Your task to perform on an android device: turn notification dots off Image 0: 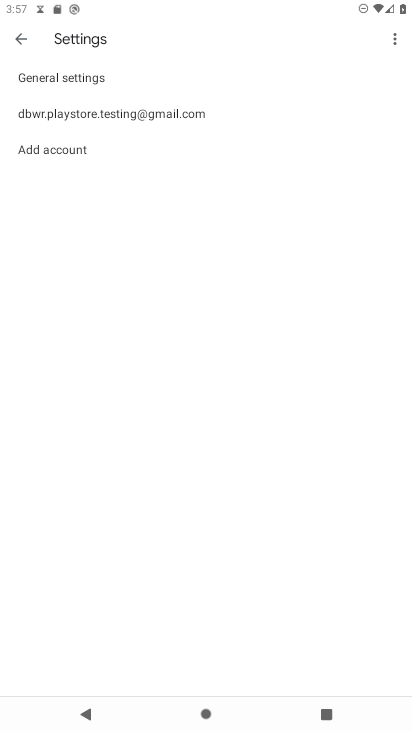
Step 0: press home button
Your task to perform on an android device: turn notification dots off Image 1: 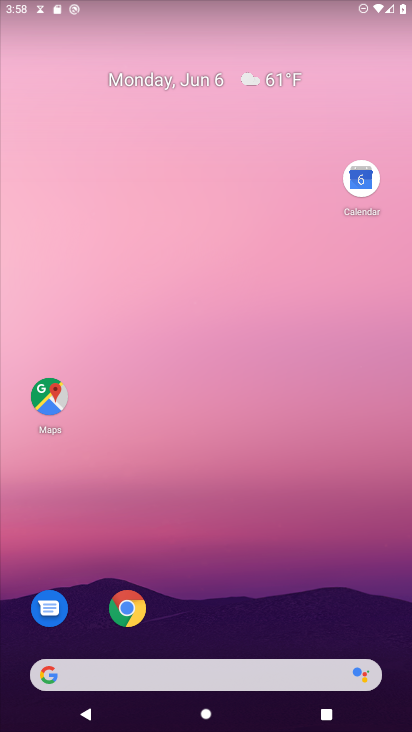
Step 1: drag from (253, 523) to (253, 20)
Your task to perform on an android device: turn notification dots off Image 2: 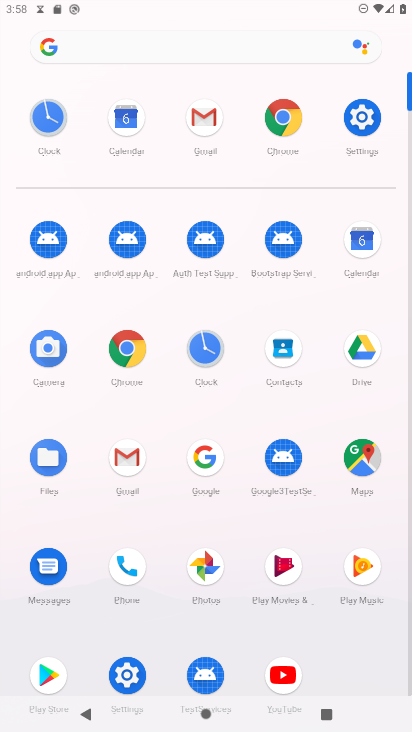
Step 2: click (364, 125)
Your task to perform on an android device: turn notification dots off Image 3: 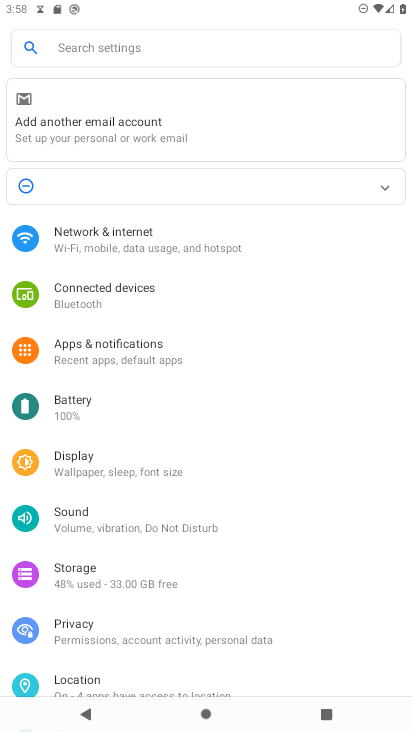
Step 3: click (114, 347)
Your task to perform on an android device: turn notification dots off Image 4: 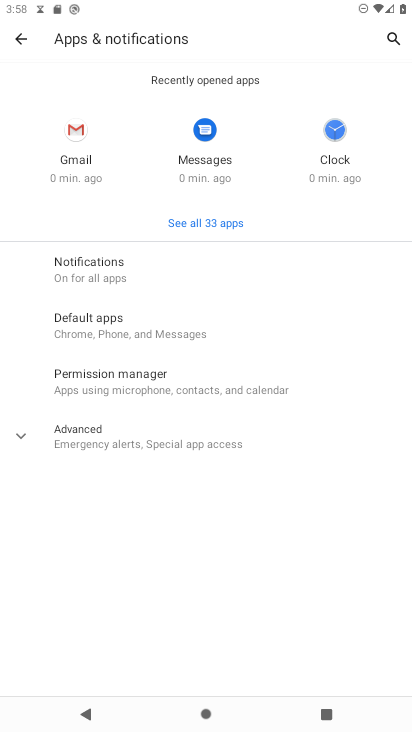
Step 4: click (123, 265)
Your task to perform on an android device: turn notification dots off Image 5: 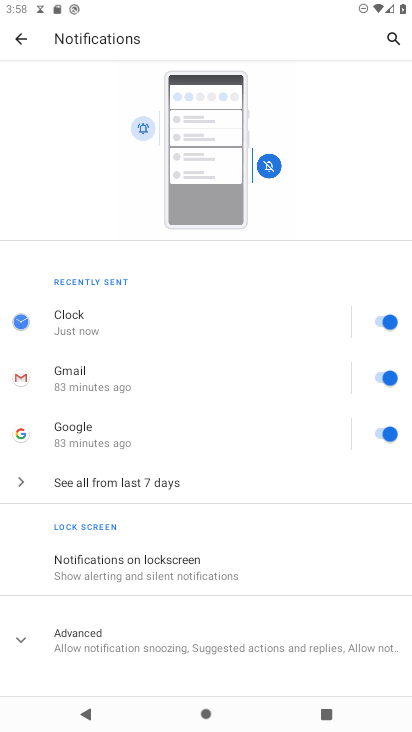
Step 5: click (122, 629)
Your task to perform on an android device: turn notification dots off Image 6: 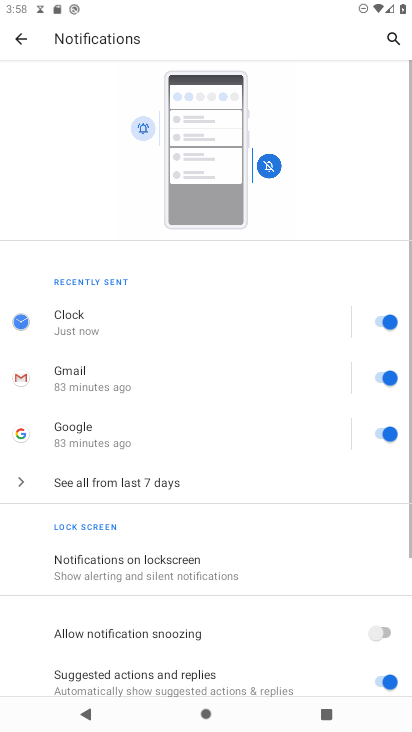
Step 6: drag from (190, 631) to (186, 285)
Your task to perform on an android device: turn notification dots off Image 7: 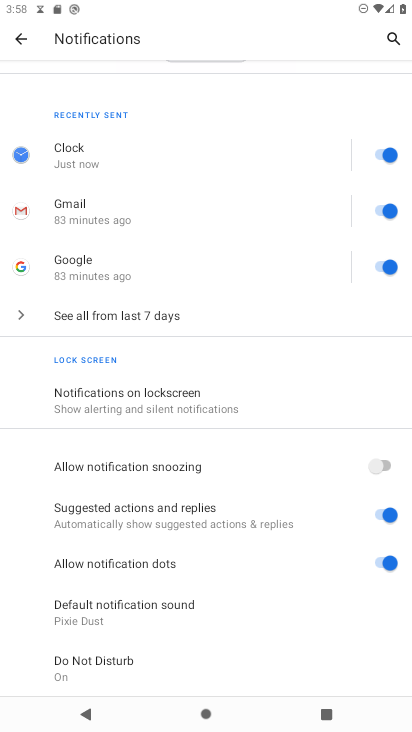
Step 7: click (377, 552)
Your task to perform on an android device: turn notification dots off Image 8: 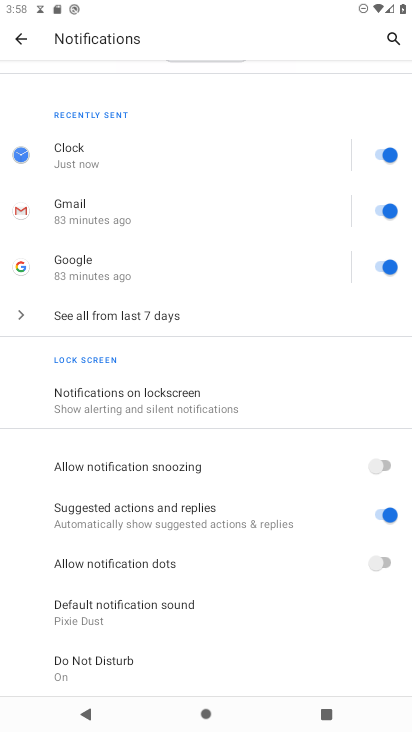
Step 8: task complete